Your task to perform on an android device: Go to Yahoo.com Image 0: 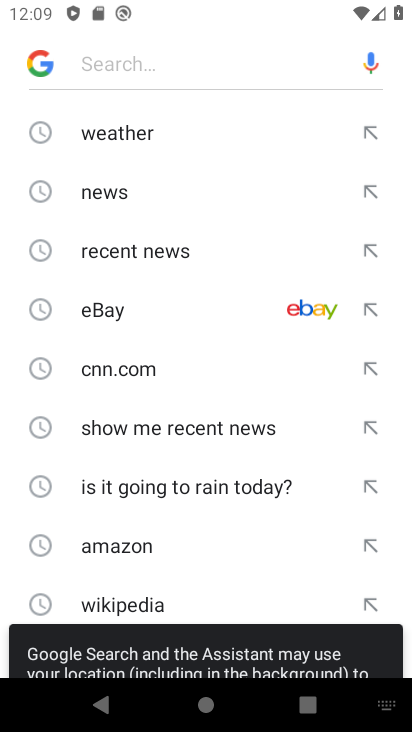
Step 0: press home button
Your task to perform on an android device: Go to Yahoo.com Image 1: 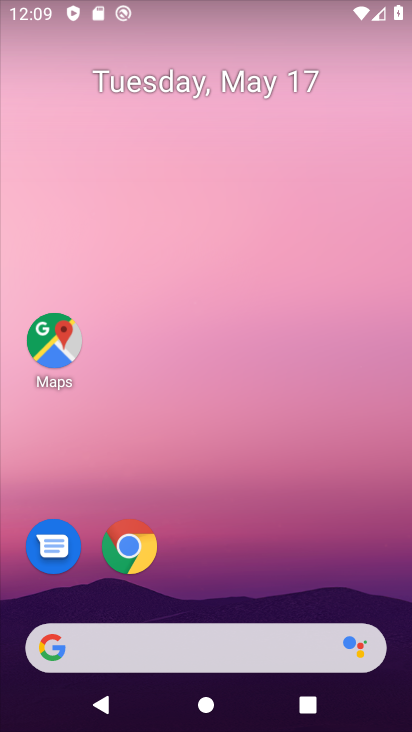
Step 1: drag from (291, 474) to (259, 9)
Your task to perform on an android device: Go to Yahoo.com Image 2: 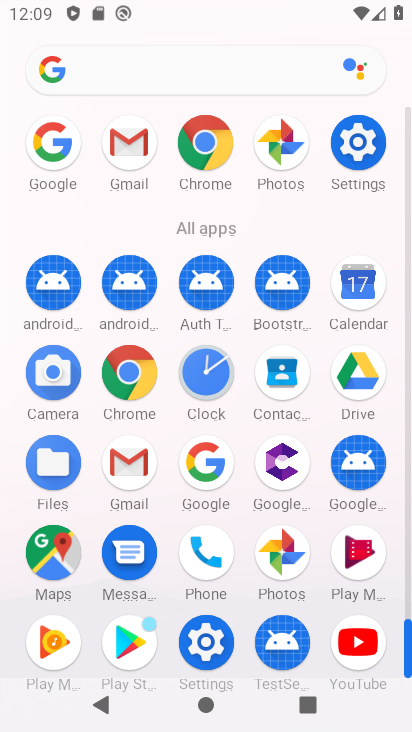
Step 2: click (200, 148)
Your task to perform on an android device: Go to Yahoo.com Image 3: 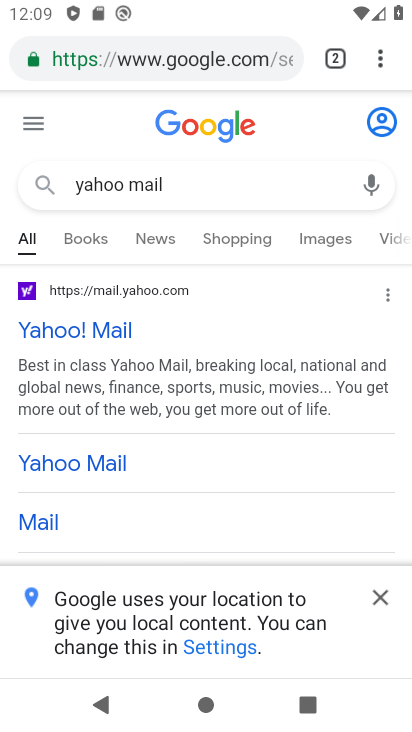
Step 3: click (81, 343)
Your task to perform on an android device: Go to Yahoo.com Image 4: 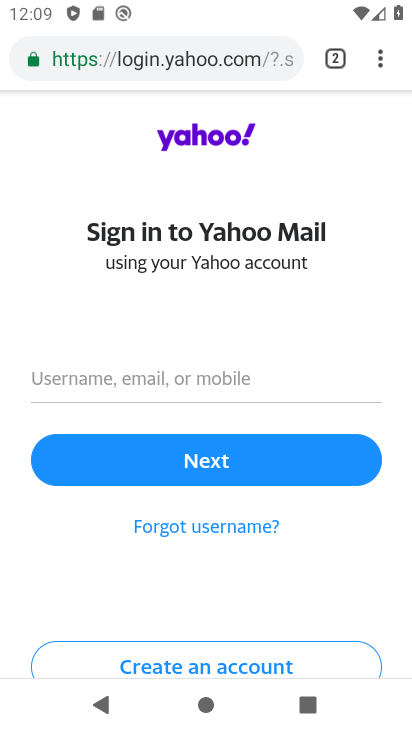
Step 4: task complete